Your task to perform on an android device: Go to calendar. Show me events next week Image 0: 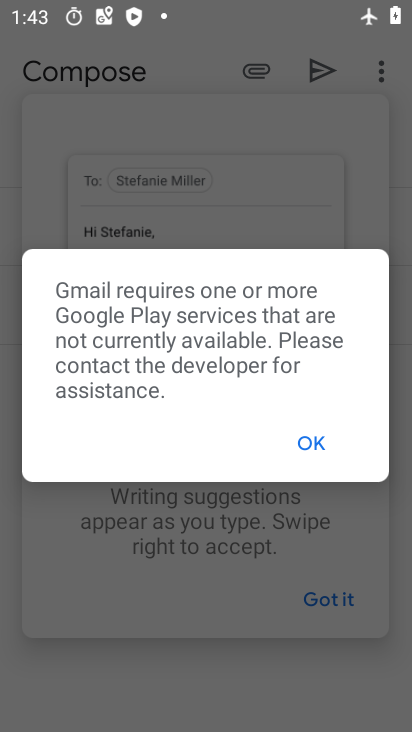
Step 0: press home button
Your task to perform on an android device: Go to calendar. Show me events next week Image 1: 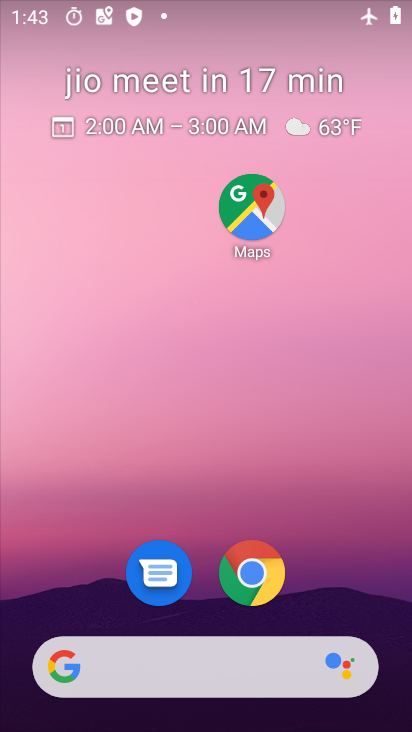
Step 1: drag from (3, 682) to (185, 122)
Your task to perform on an android device: Go to calendar. Show me events next week Image 2: 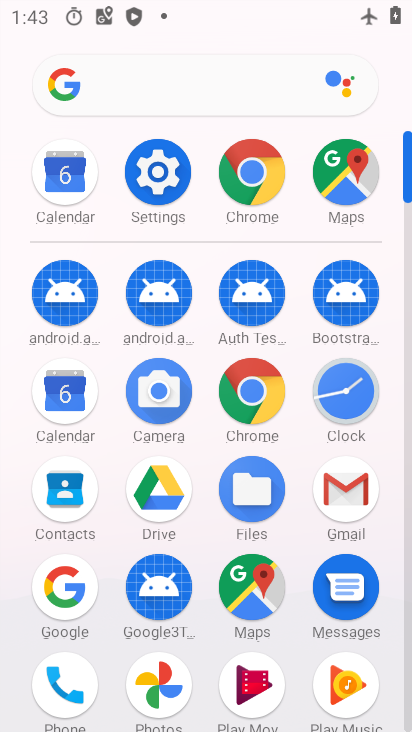
Step 2: click (71, 395)
Your task to perform on an android device: Go to calendar. Show me events next week Image 3: 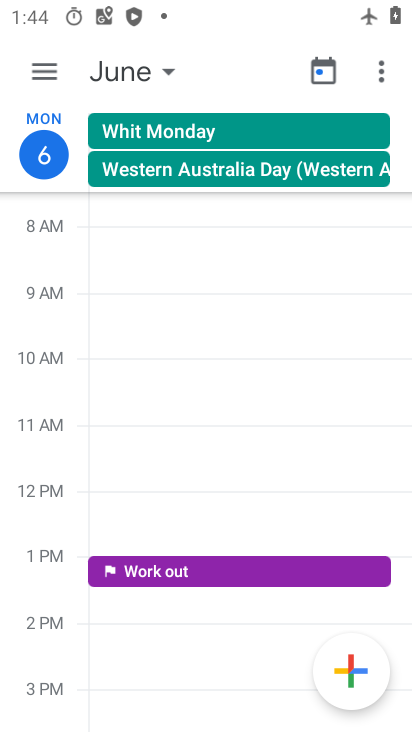
Step 3: click (127, 67)
Your task to perform on an android device: Go to calendar. Show me events next week Image 4: 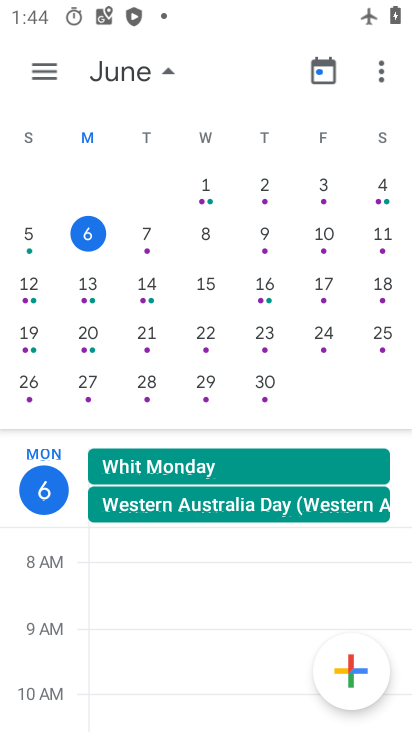
Step 4: click (79, 288)
Your task to perform on an android device: Go to calendar. Show me events next week Image 5: 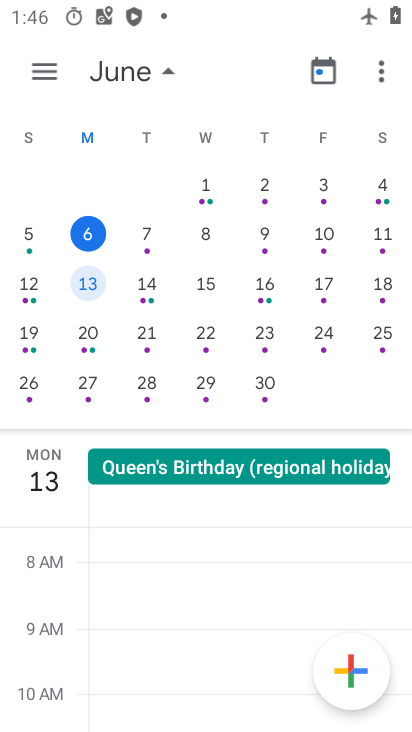
Step 5: click (20, 300)
Your task to perform on an android device: Go to calendar. Show me events next week Image 6: 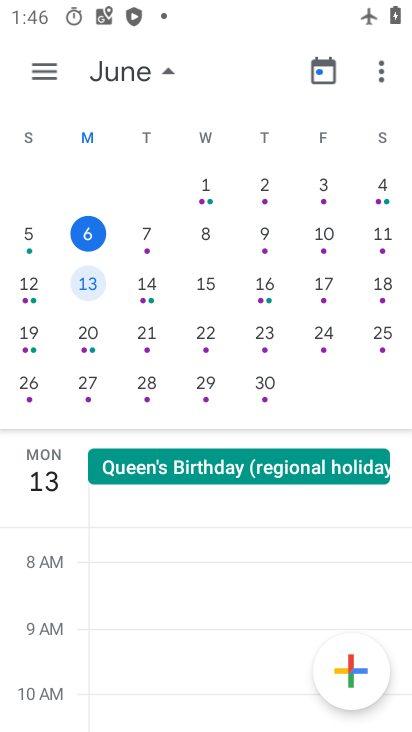
Step 6: click (39, 290)
Your task to perform on an android device: Go to calendar. Show me events next week Image 7: 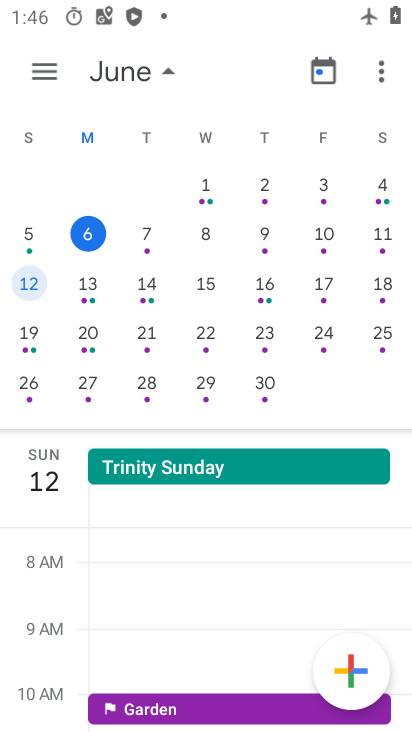
Step 7: click (151, 66)
Your task to perform on an android device: Go to calendar. Show me events next week Image 8: 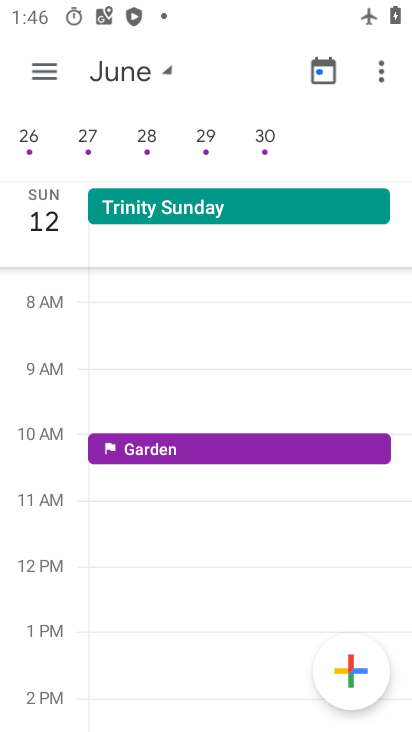
Step 8: click (42, 78)
Your task to perform on an android device: Go to calendar. Show me events next week Image 9: 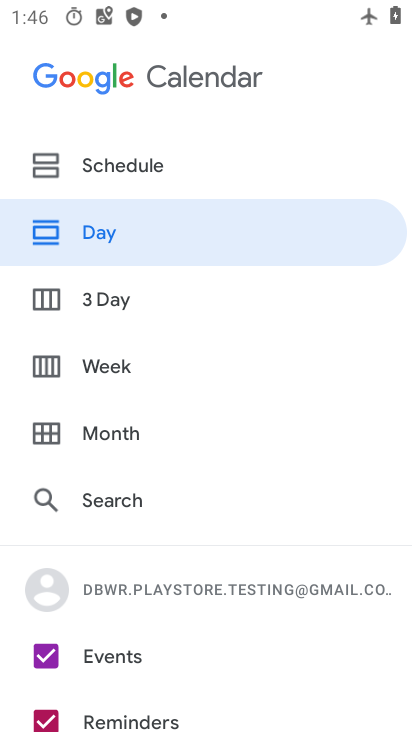
Step 9: click (132, 365)
Your task to perform on an android device: Go to calendar. Show me events next week Image 10: 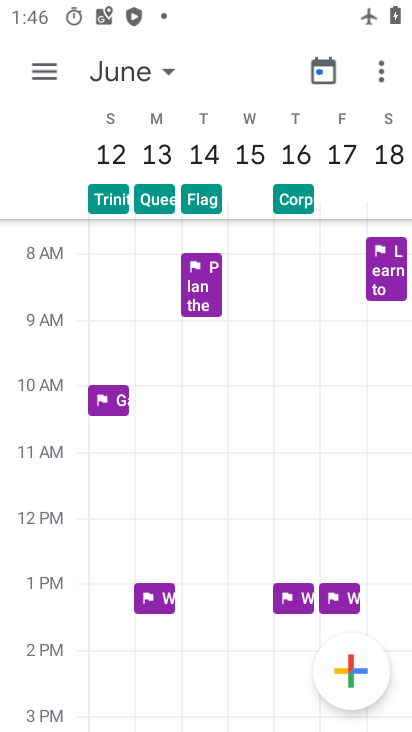
Step 10: task complete